Your task to perform on an android device: change your default location settings in chrome Image 0: 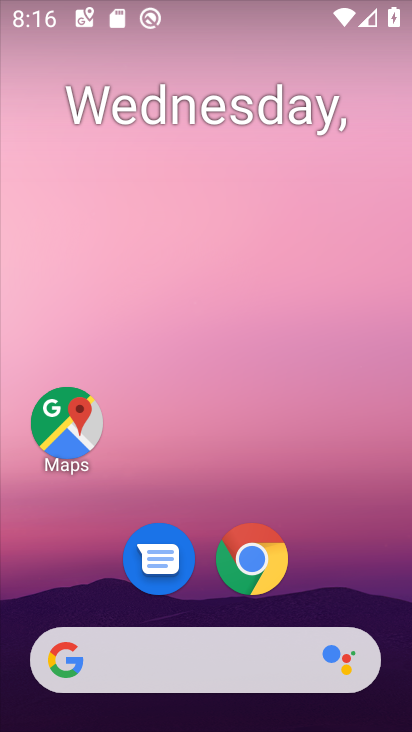
Step 0: drag from (390, 589) to (382, 268)
Your task to perform on an android device: change your default location settings in chrome Image 1: 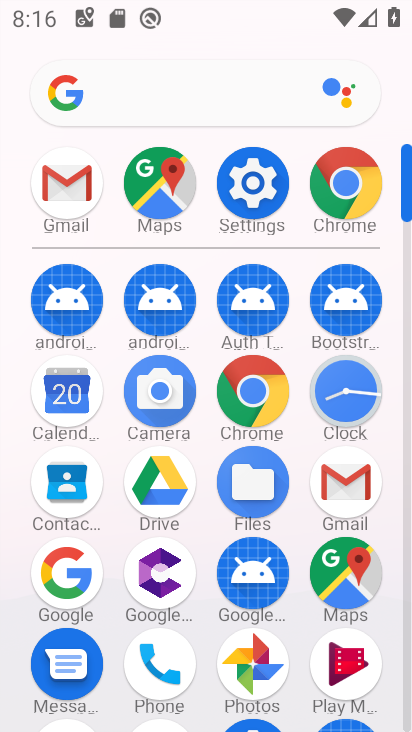
Step 1: click (254, 410)
Your task to perform on an android device: change your default location settings in chrome Image 2: 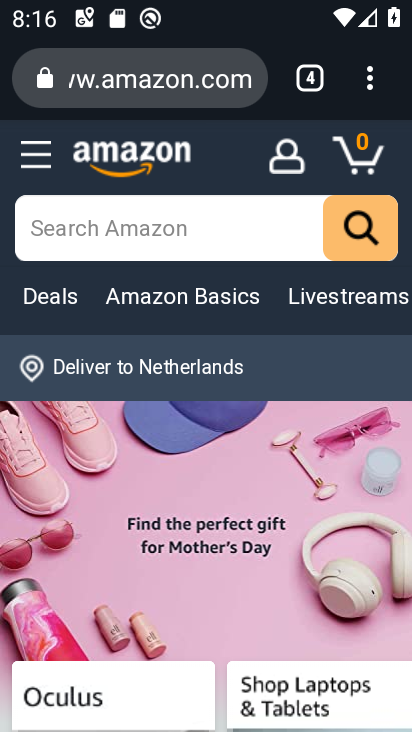
Step 2: click (379, 81)
Your task to perform on an android device: change your default location settings in chrome Image 3: 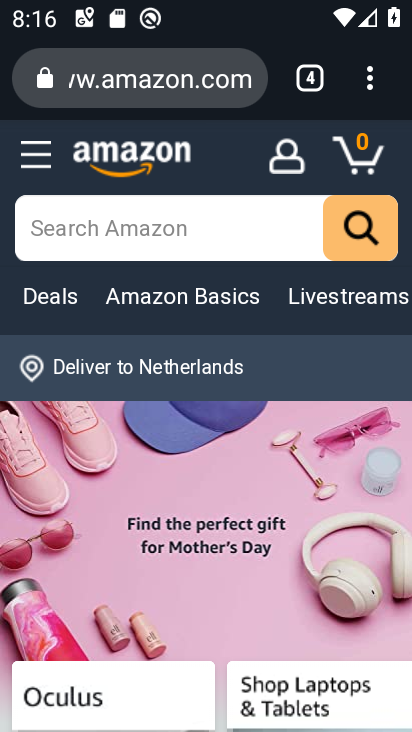
Step 3: drag from (376, 97) to (182, 618)
Your task to perform on an android device: change your default location settings in chrome Image 4: 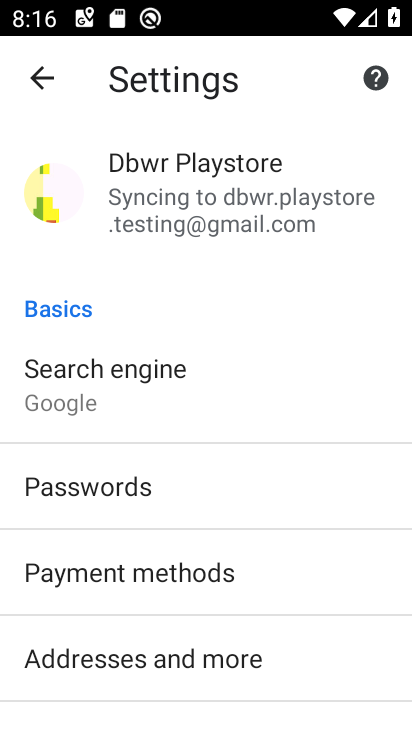
Step 4: click (314, 374)
Your task to perform on an android device: change your default location settings in chrome Image 5: 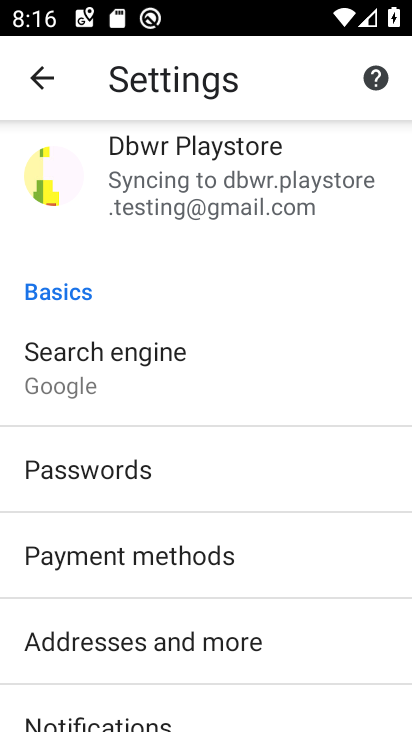
Step 5: drag from (302, 691) to (310, 372)
Your task to perform on an android device: change your default location settings in chrome Image 6: 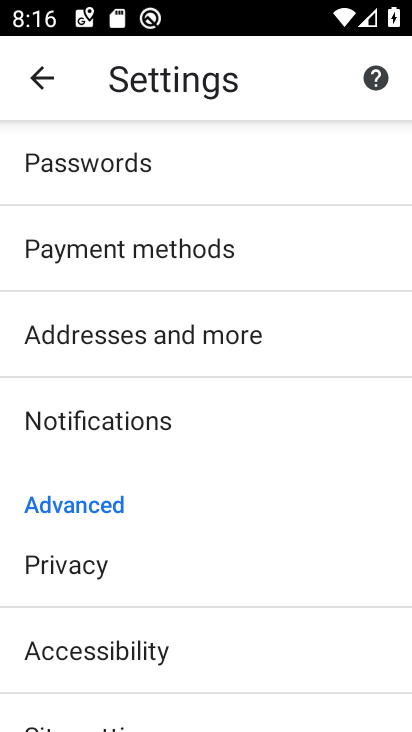
Step 6: drag from (195, 661) to (285, 312)
Your task to perform on an android device: change your default location settings in chrome Image 7: 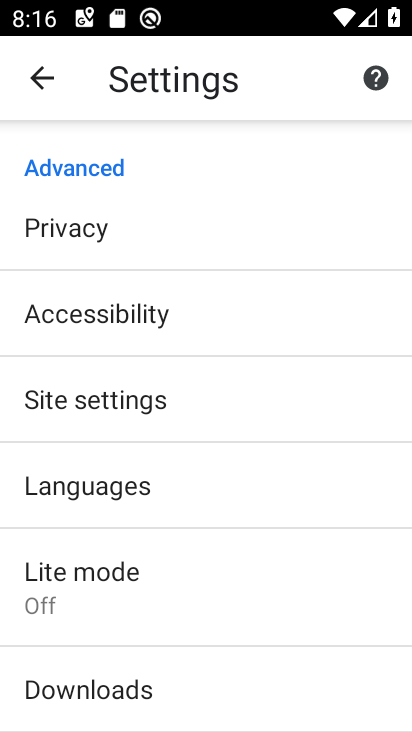
Step 7: click (134, 410)
Your task to perform on an android device: change your default location settings in chrome Image 8: 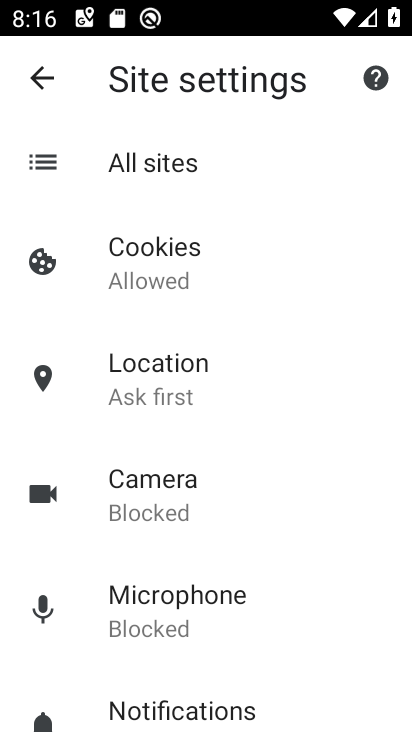
Step 8: drag from (320, 604) to (359, 268)
Your task to perform on an android device: change your default location settings in chrome Image 9: 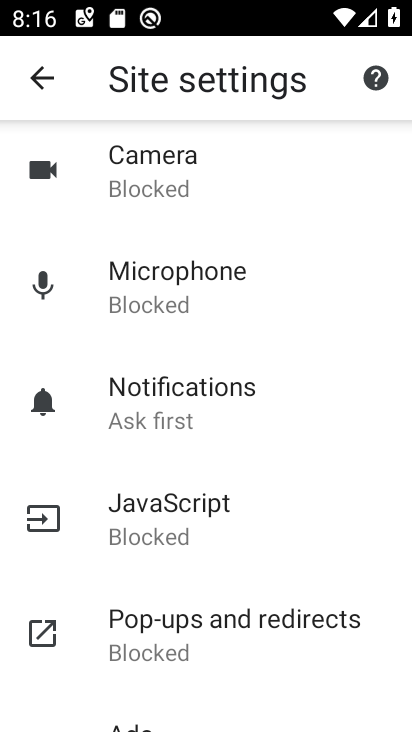
Step 9: drag from (358, 283) to (353, 506)
Your task to perform on an android device: change your default location settings in chrome Image 10: 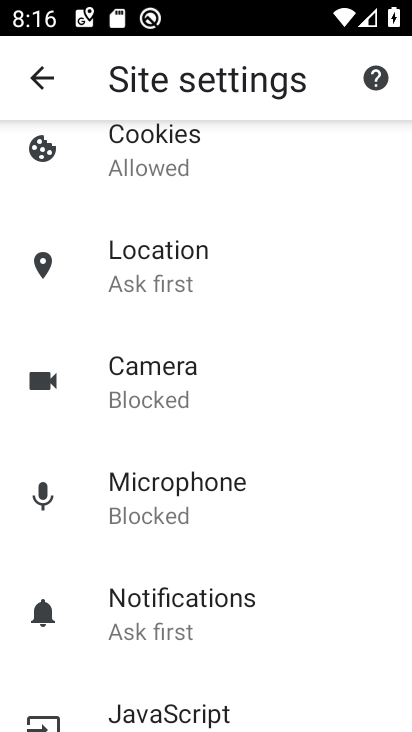
Step 10: click (189, 274)
Your task to perform on an android device: change your default location settings in chrome Image 11: 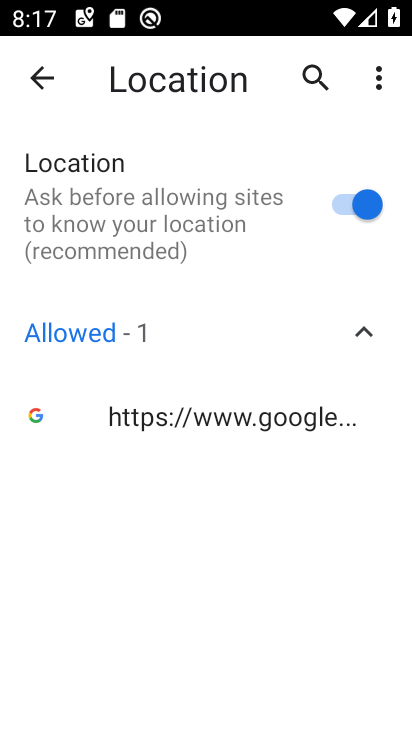
Step 11: click (351, 207)
Your task to perform on an android device: change your default location settings in chrome Image 12: 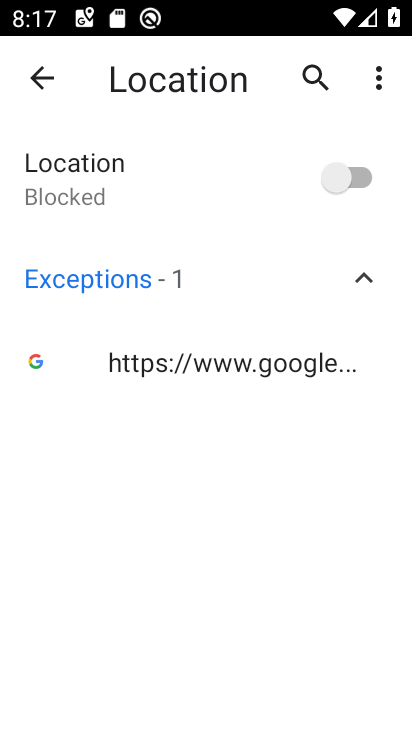
Step 12: task complete